Your task to perform on an android device: Check the weather Image 0: 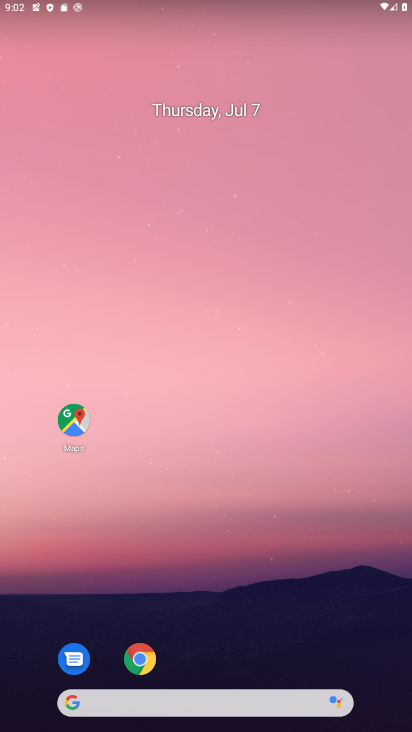
Step 0: click (183, 696)
Your task to perform on an android device: Check the weather Image 1: 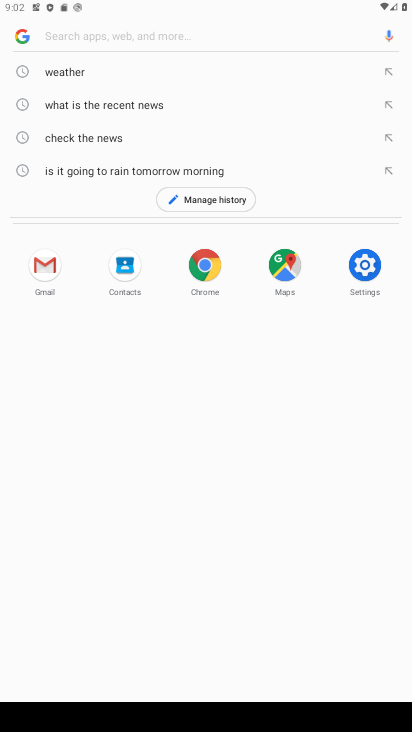
Step 1: click (80, 67)
Your task to perform on an android device: Check the weather Image 2: 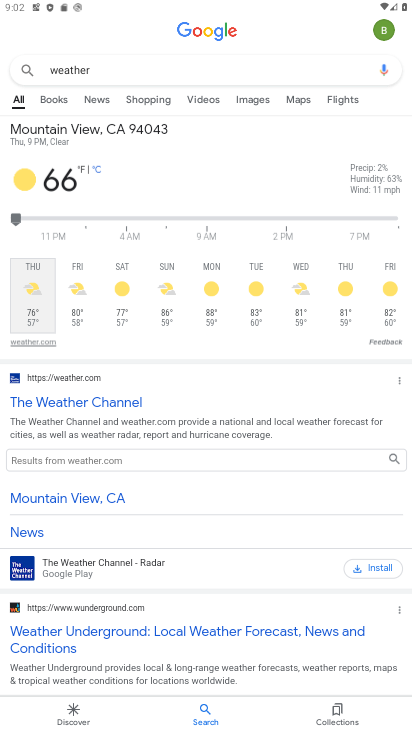
Step 2: task complete